Your task to perform on an android device: all mails in gmail Image 0: 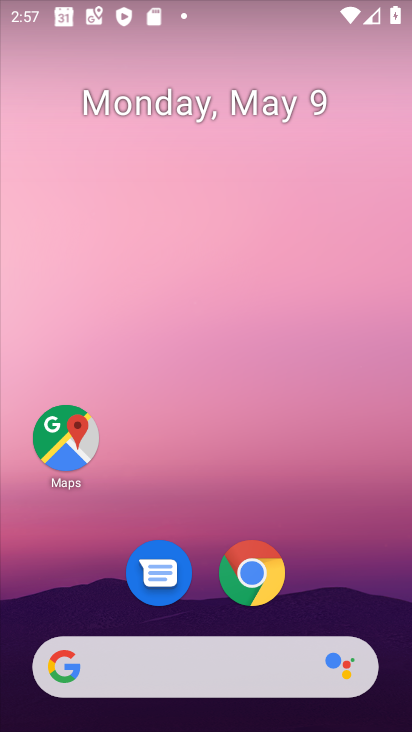
Step 0: drag from (200, 600) to (255, 104)
Your task to perform on an android device: all mails in gmail Image 1: 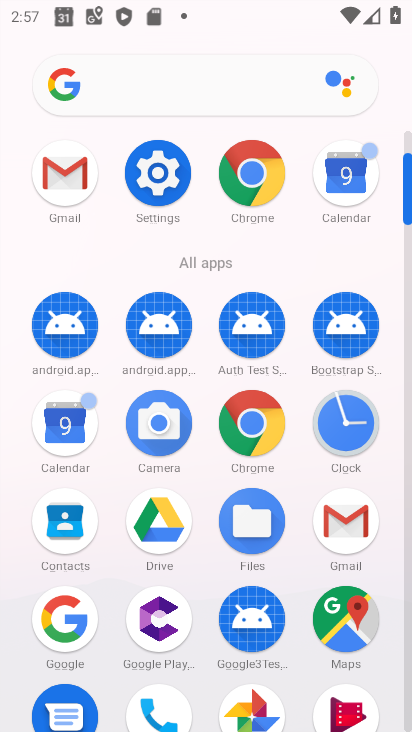
Step 1: click (56, 176)
Your task to perform on an android device: all mails in gmail Image 2: 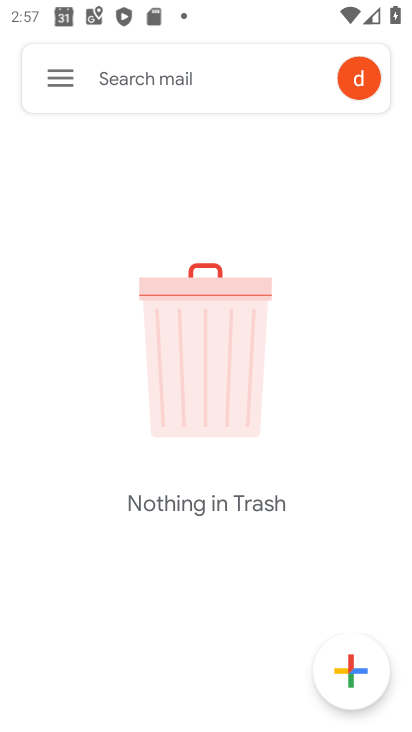
Step 2: click (56, 68)
Your task to perform on an android device: all mails in gmail Image 3: 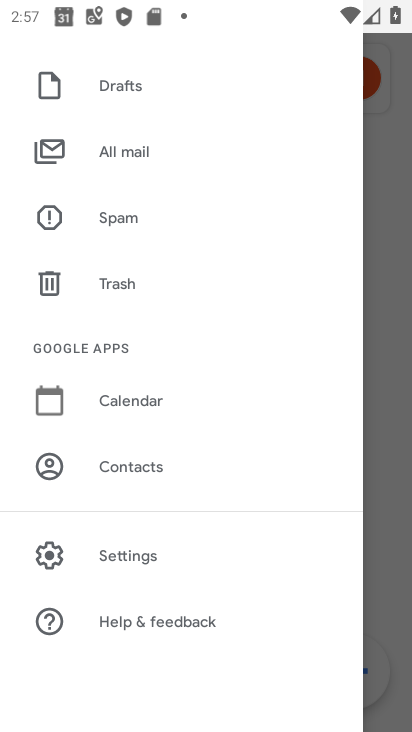
Step 3: click (113, 157)
Your task to perform on an android device: all mails in gmail Image 4: 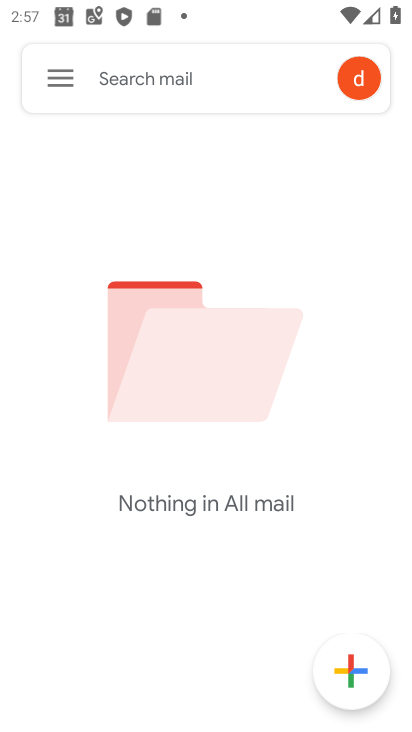
Step 4: task complete